Your task to perform on an android device: Show me productivity apps on the Play Store Image 0: 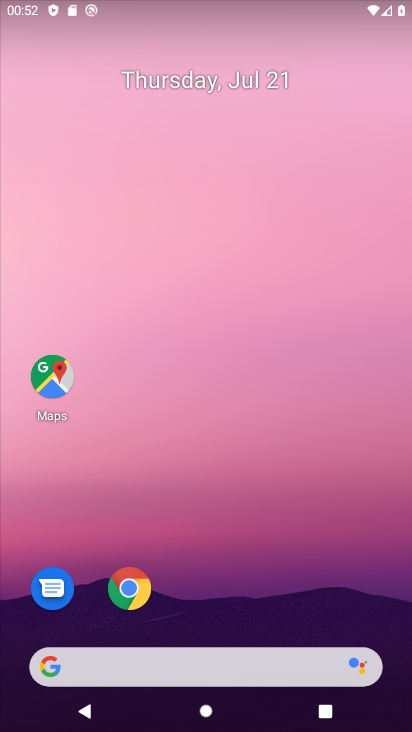
Step 0: drag from (276, 582) to (175, 37)
Your task to perform on an android device: Show me productivity apps on the Play Store Image 1: 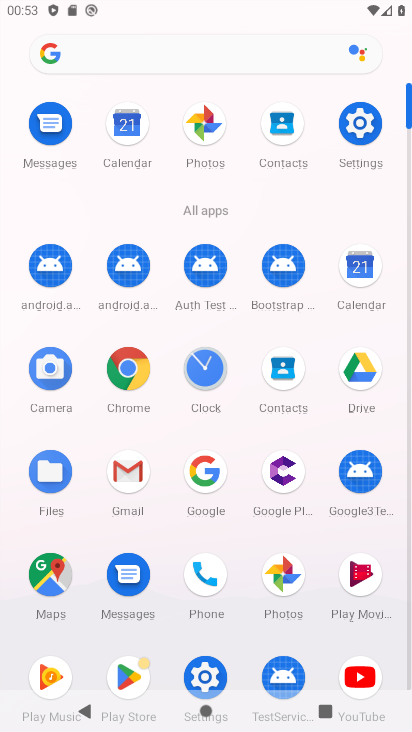
Step 1: click (116, 673)
Your task to perform on an android device: Show me productivity apps on the Play Store Image 2: 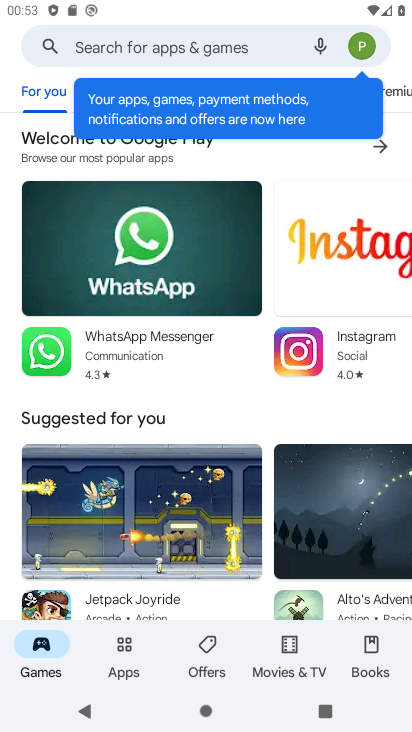
Step 2: drag from (266, 423) to (222, 342)
Your task to perform on an android device: Show me productivity apps on the Play Store Image 3: 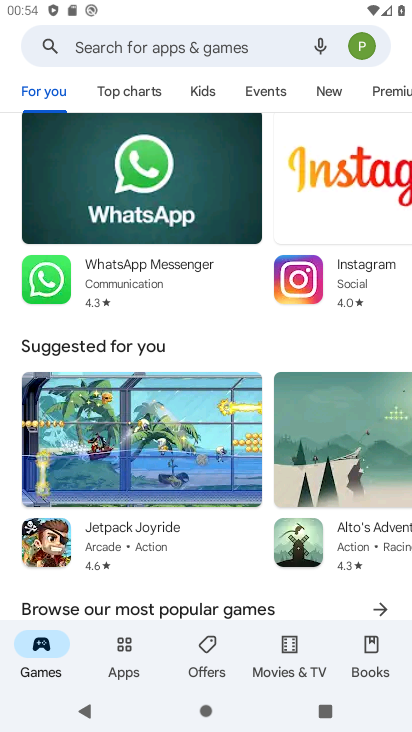
Step 3: drag from (328, 82) to (85, 82)
Your task to perform on an android device: Show me productivity apps on the Play Store Image 4: 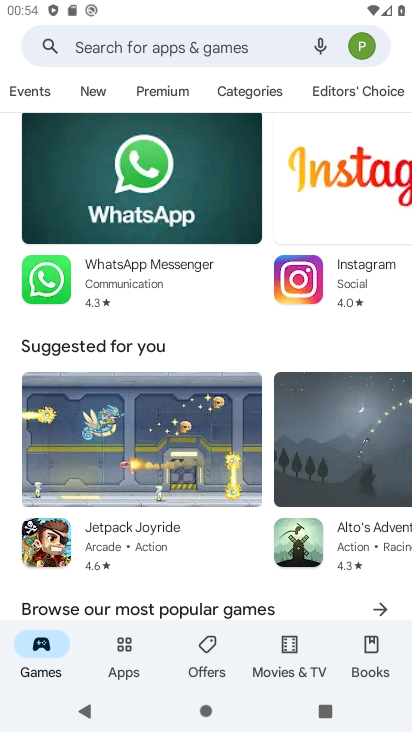
Step 4: click (266, 86)
Your task to perform on an android device: Show me productivity apps on the Play Store Image 5: 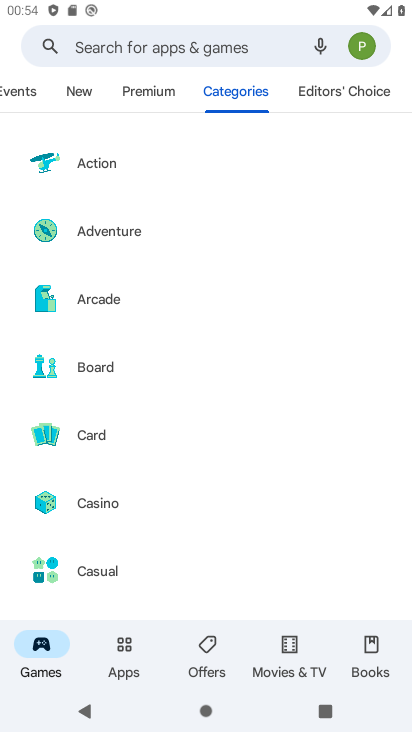
Step 5: drag from (280, 587) to (202, 4)
Your task to perform on an android device: Show me productivity apps on the Play Store Image 6: 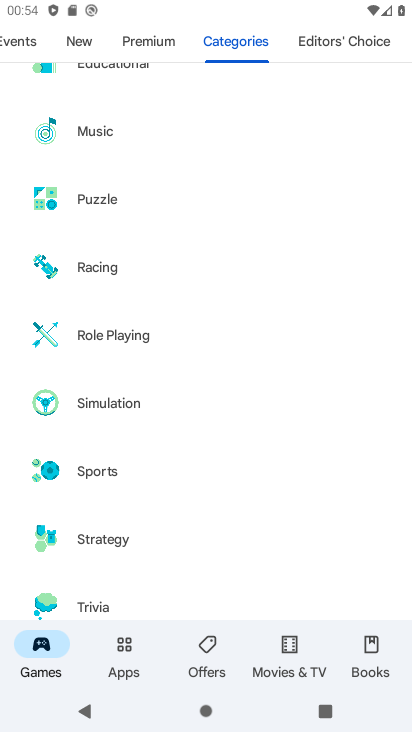
Step 6: click (120, 647)
Your task to perform on an android device: Show me productivity apps on the Play Store Image 7: 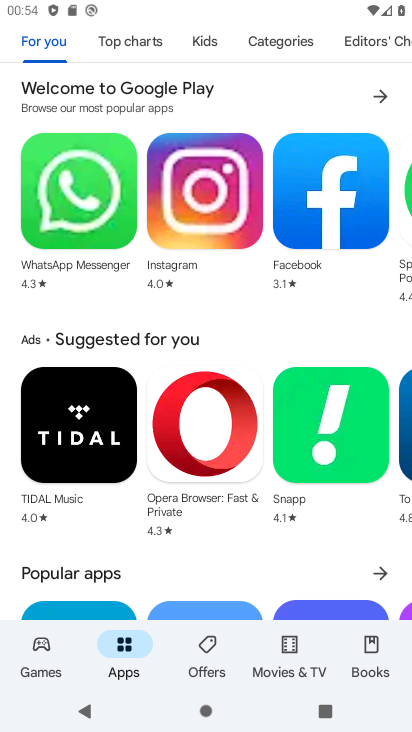
Step 7: click (304, 38)
Your task to perform on an android device: Show me productivity apps on the Play Store Image 8: 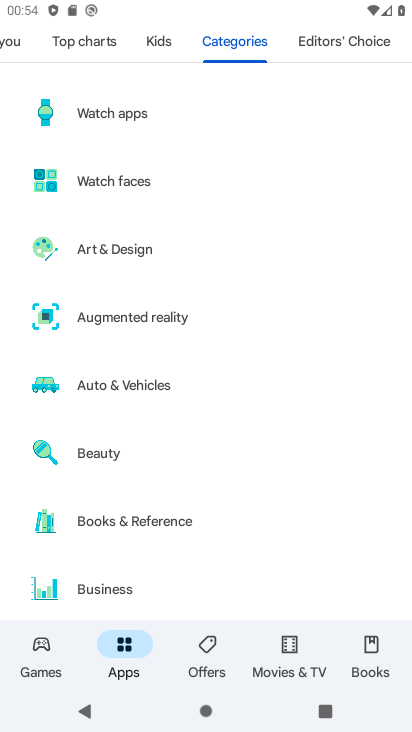
Step 8: drag from (209, 534) to (115, 190)
Your task to perform on an android device: Show me productivity apps on the Play Store Image 9: 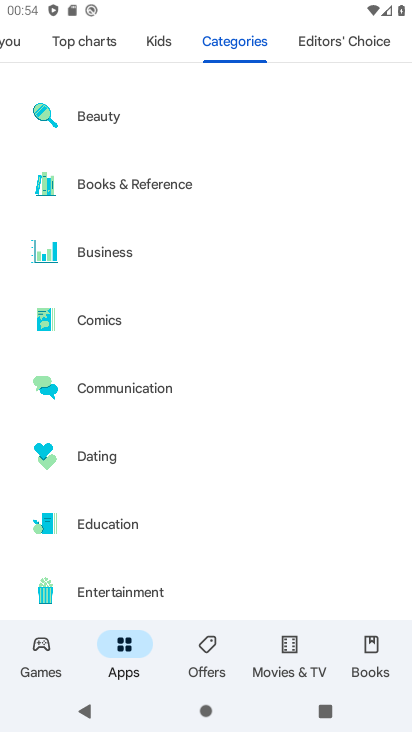
Step 9: drag from (170, 585) to (157, 131)
Your task to perform on an android device: Show me productivity apps on the Play Store Image 10: 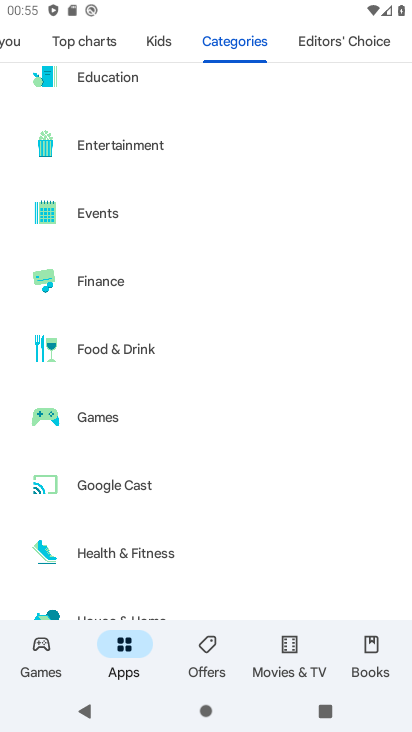
Step 10: drag from (198, 547) to (159, 121)
Your task to perform on an android device: Show me productivity apps on the Play Store Image 11: 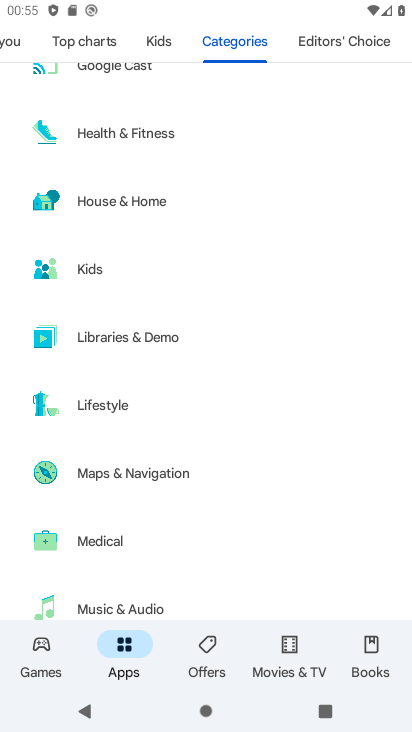
Step 11: drag from (204, 453) to (179, 63)
Your task to perform on an android device: Show me productivity apps on the Play Store Image 12: 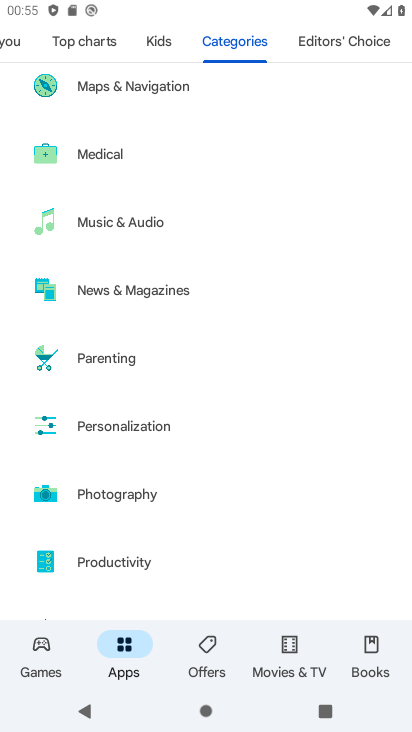
Step 12: click (154, 560)
Your task to perform on an android device: Show me productivity apps on the Play Store Image 13: 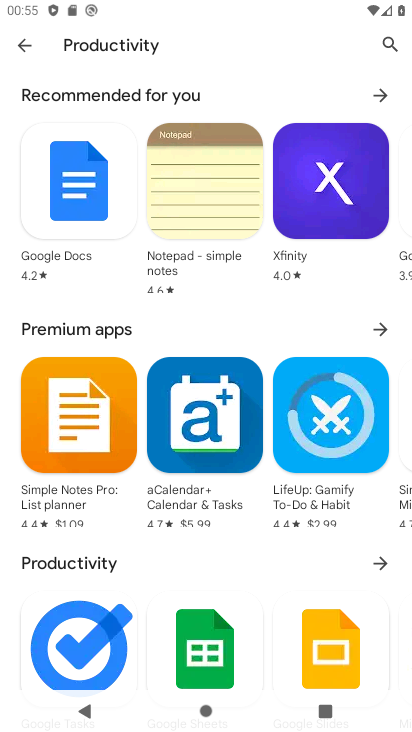
Step 13: task complete